Your task to perform on an android device: delete the emails in spam in the gmail app Image 0: 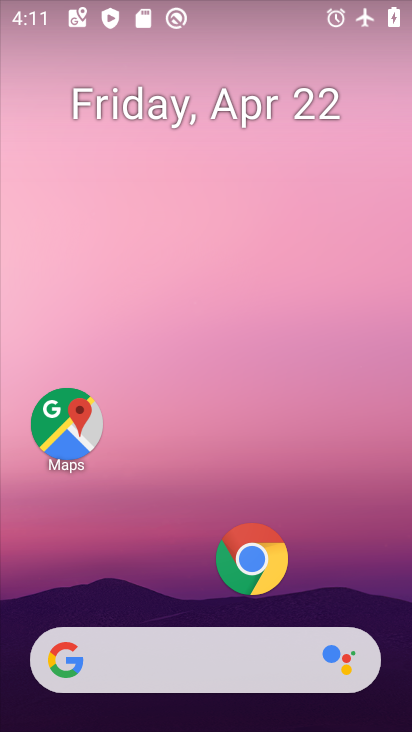
Step 0: drag from (149, 597) to (203, 25)
Your task to perform on an android device: delete the emails in spam in the gmail app Image 1: 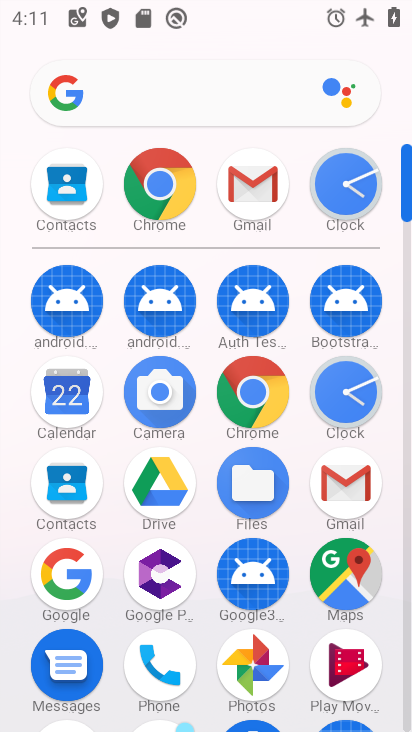
Step 1: click (342, 485)
Your task to perform on an android device: delete the emails in spam in the gmail app Image 2: 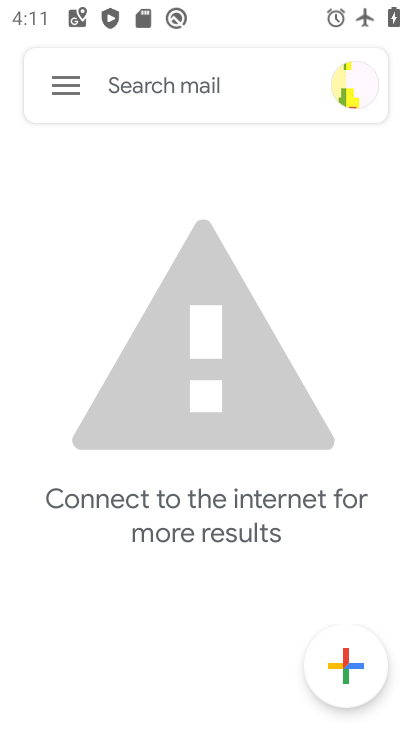
Step 2: click (57, 86)
Your task to perform on an android device: delete the emails in spam in the gmail app Image 3: 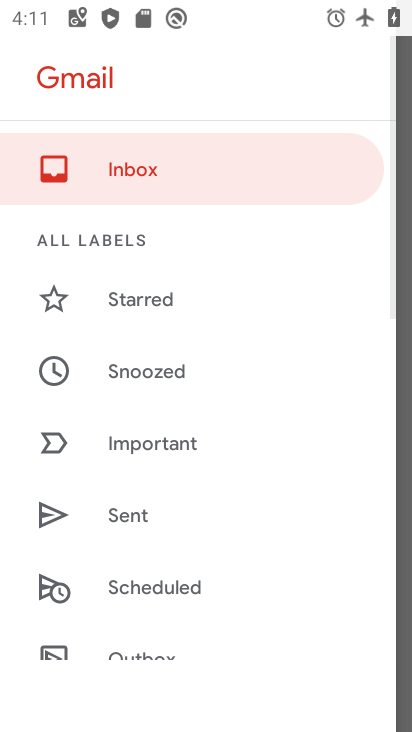
Step 3: drag from (160, 585) to (211, 173)
Your task to perform on an android device: delete the emails in spam in the gmail app Image 4: 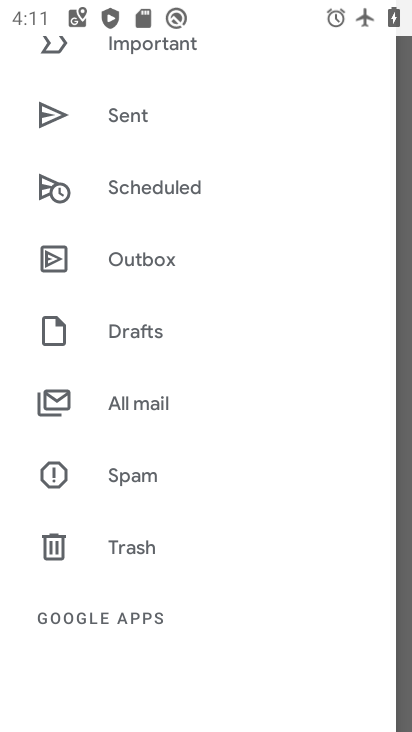
Step 4: click (121, 468)
Your task to perform on an android device: delete the emails in spam in the gmail app Image 5: 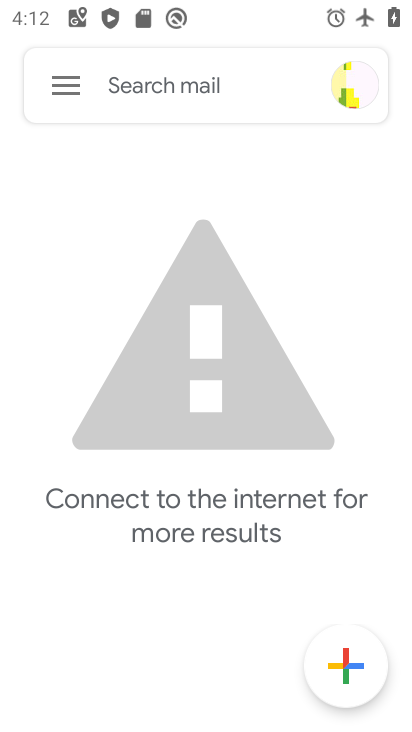
Step 5: task complete